Your task to perform on an android device: When is my next appointment? Image 0: 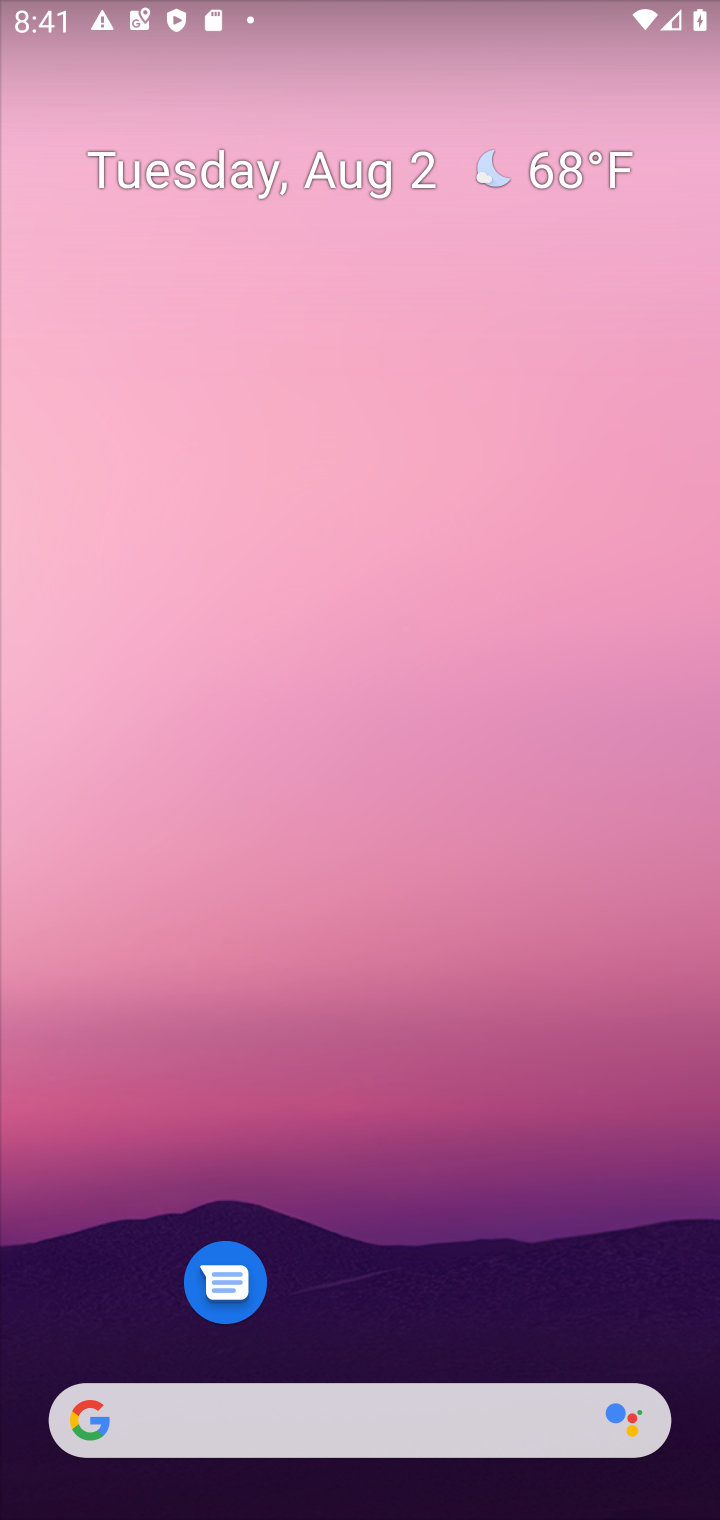
Step 0: click (393, 1381)
Your task to perform on an android device: When is my next appointment? Image 1: 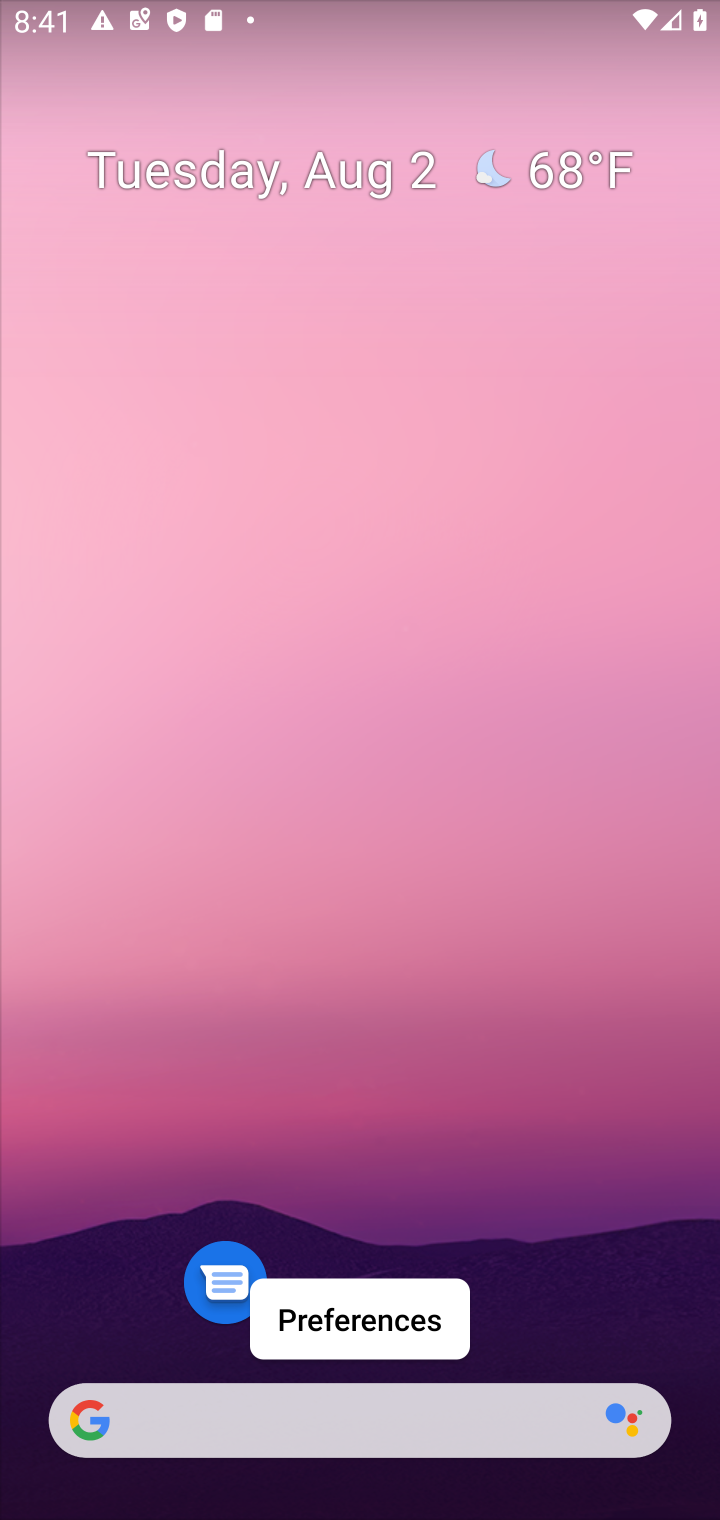
Step 1: drag from (440, 1302) to (521, 185)
Your task to perform on an android device: When is my next appointment? Image 2: 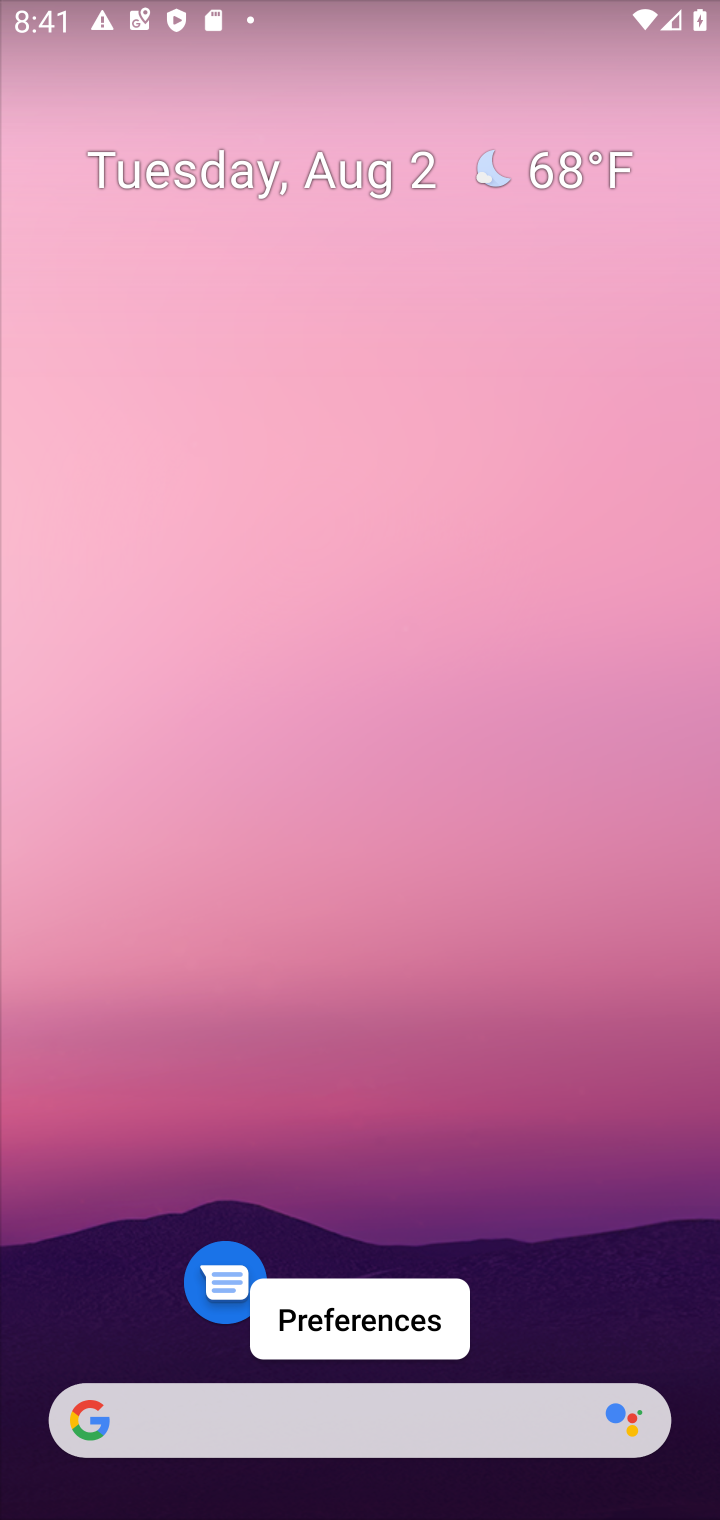
Step 2: drag from (528, 1239) to (564, 125)
Your task to perform on an android device: When is my next appointment? Image 3: 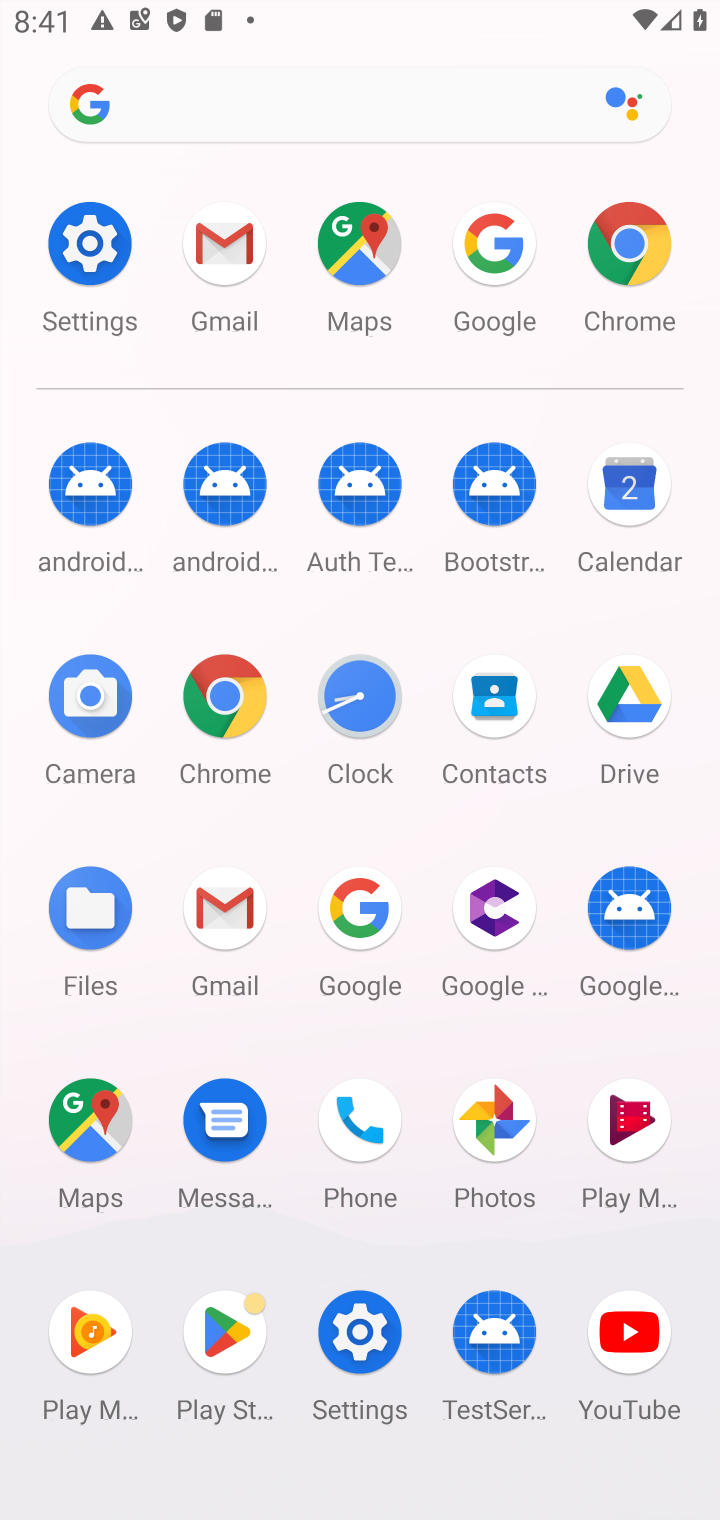
Step 3: click (587, 515)
Your task to perform on an android device: When is my next appointment? Image 4: 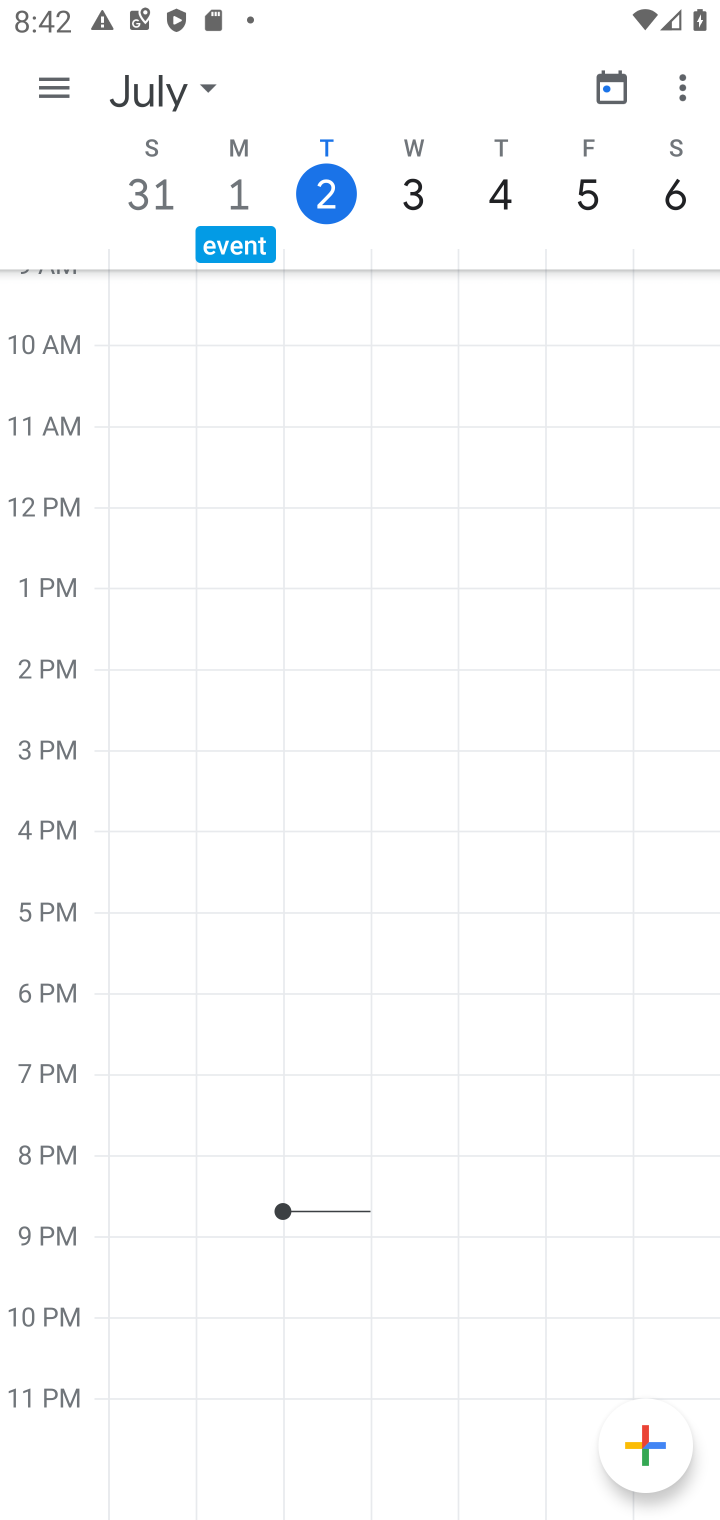
Step 4: task complete